Your task to perform on an android device: Open network settings Image 0: 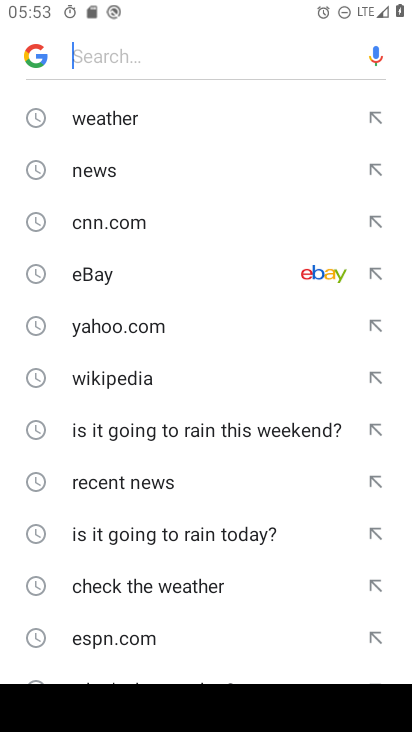
Step 0: press home button
Your task to perform on an android device: Open network settings Image 1: 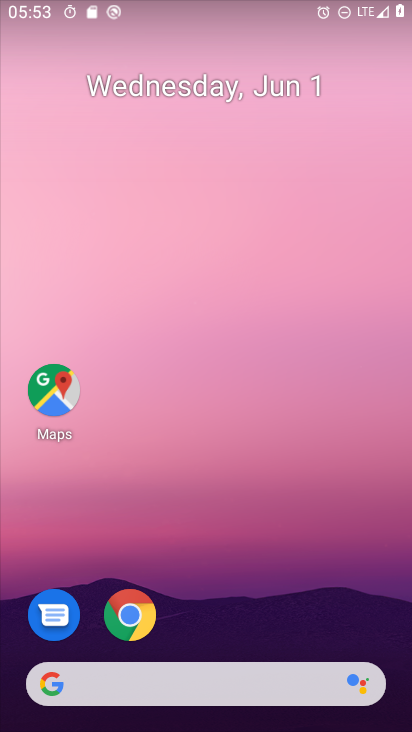
Step 1: drag from (298, 578) to (299, 6)
Your task to perform on an android device: Open network settings Image 2: 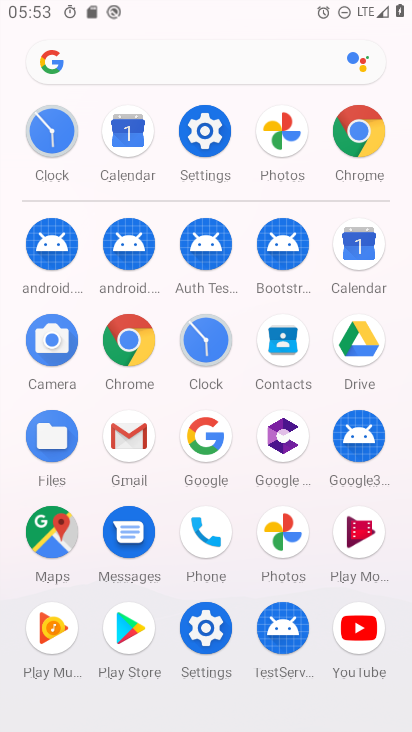
Step 2: click (209, 147)
Your task to perform on an android device: Open network settings Image 3: 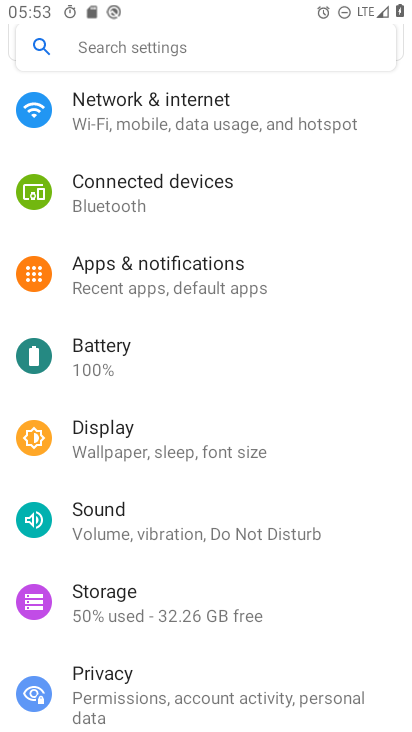
Step 3: click (201, 115)
Your task to perform on an android device: Open network settings Image 4: 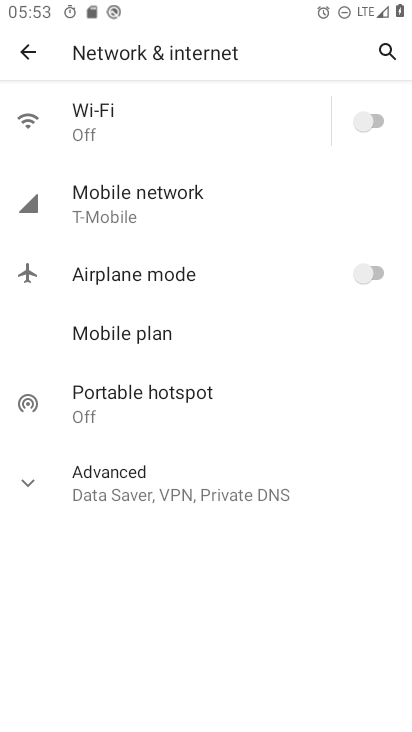
Step 4: task complete